Your task to perform on an android device: allow notifications from all sites in the chrome app Image 0: 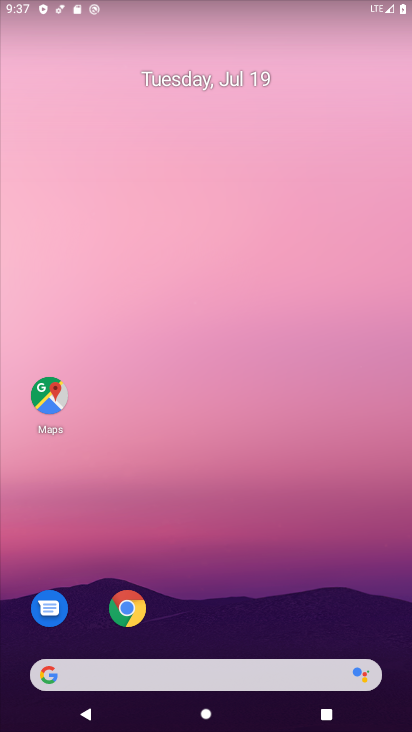
Step 0: click (122, 606)
Your task to perform on an android device: allow notifications from all sites in the chrome app Image 1: 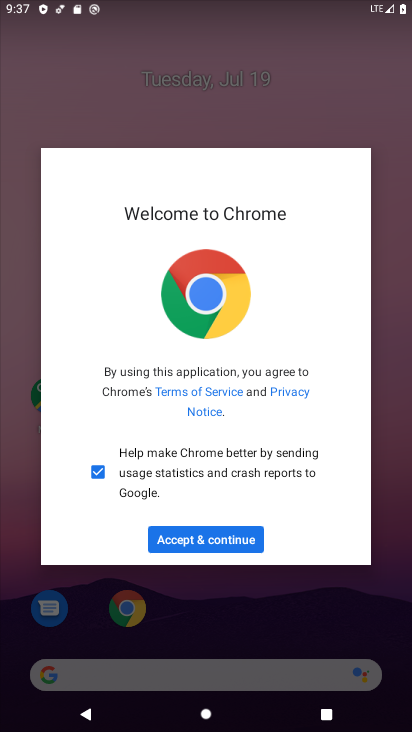
Step 1: click (217, 535)
Your task to perform on an android device: allow notifications from all sites in the chrome app Image 2: 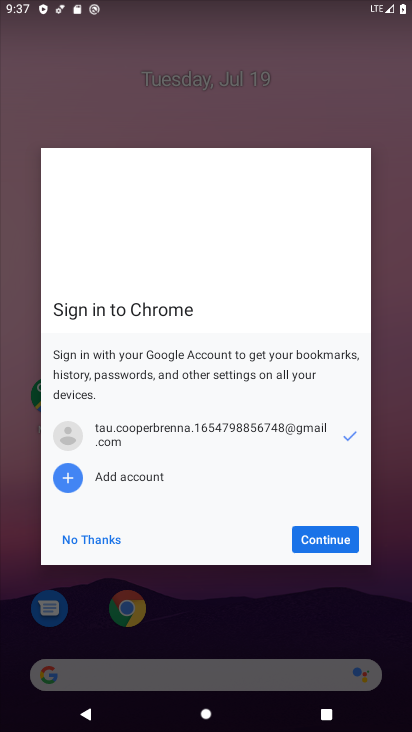
Step 2: click (349, 541)
Your task to perform on an android device: allow notifications from all sites in the chrome app Image 3: 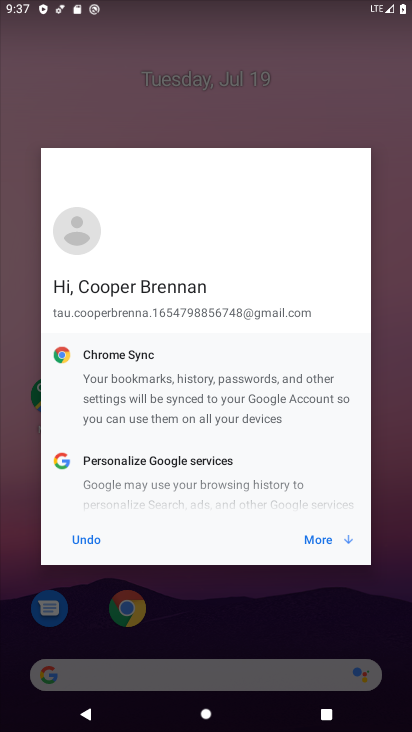
Step 3: click (349, 541)
Your task to perform on an android device: allow notifications from all sites in the chrome app Image 4: 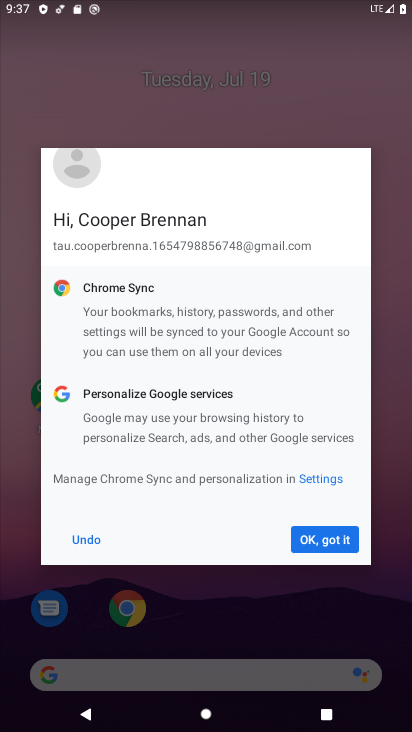
Step 4: click (349, 541)
Your task to perform on an android device: allow notifications from all sites in the chrome app Image 5: 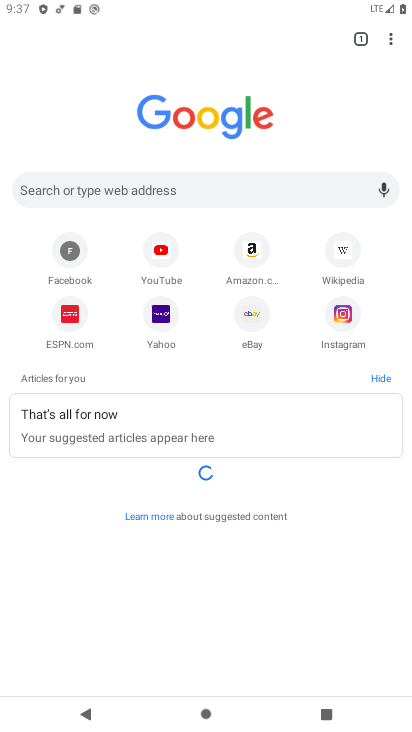
Step 5: click (386, 35)
Your task to perform on an android device: allow notifications from all sites in the chrome app Image 6: 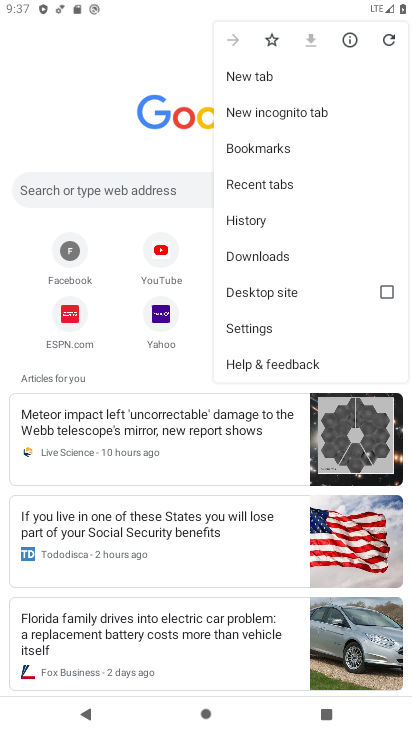
Step 6: click (272, 320)
Your task to perform on an android device: allow notifications from all sites in the chrome app Image 7: 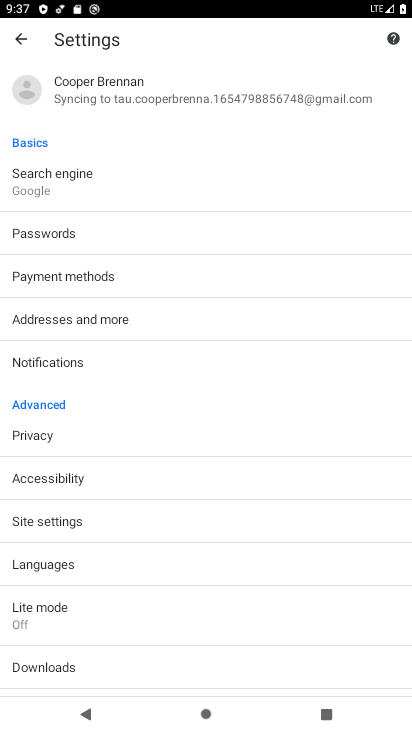
Step 7: click (23, 356)
Your task to perform on an android device: allow notifications from all sites in the chrome app Image 8: 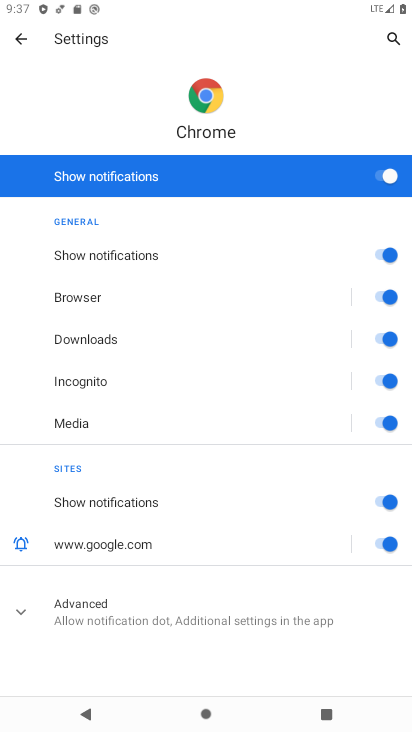
Step 8: task complete